Your task to perform on an android device: open device folders in google photos Image 0: 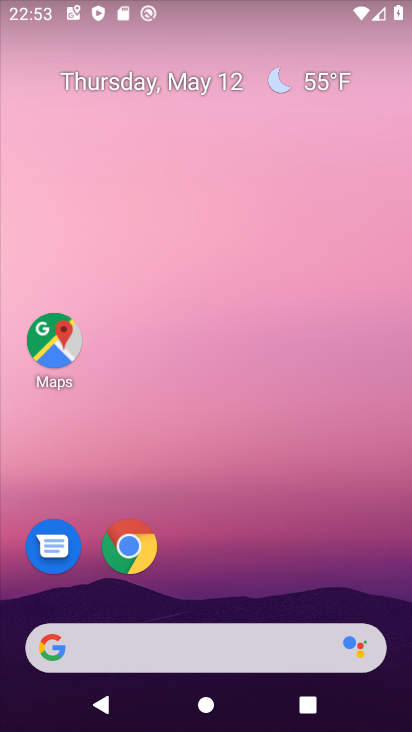
Step 0: drag from (203, 604) to (178, 143)
Your task to perform on an android device: open device folders in google photos Image 1: 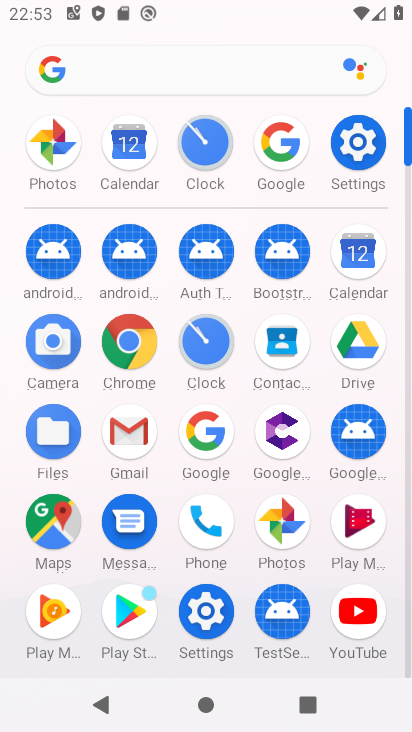
Step 1: click (55, 147)
Your task to perform on an android device: open device folders in google photos Image 2: 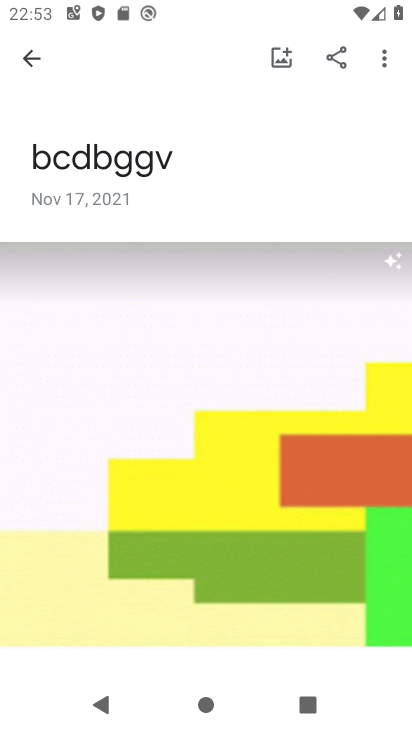
Step 2: click (26, 54)
Your task to perform on an android device: open device folders in google photos Image 3: 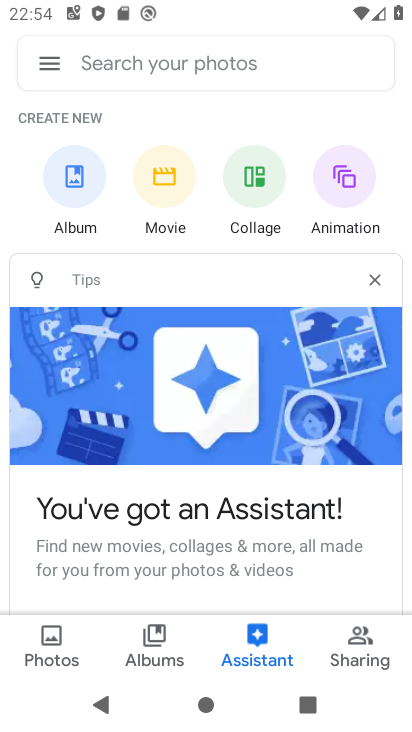
Step 3: click (173, 55)
Your task to perform on an android device: open device folders in google photos Image 4: 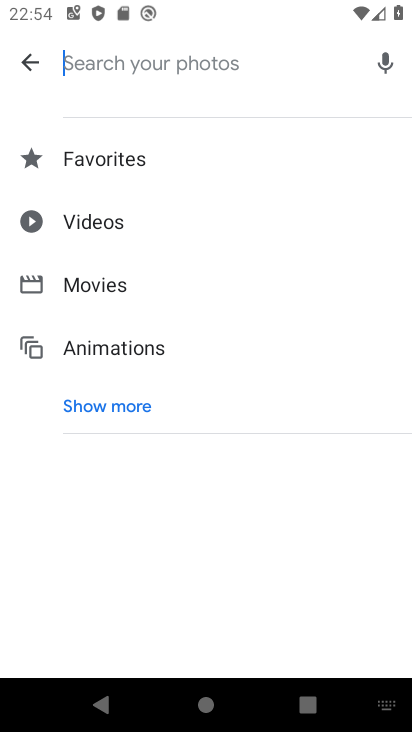
Step 4: type "device folder"
Your task to perform on an android device: open device folders in google photos Image 5: 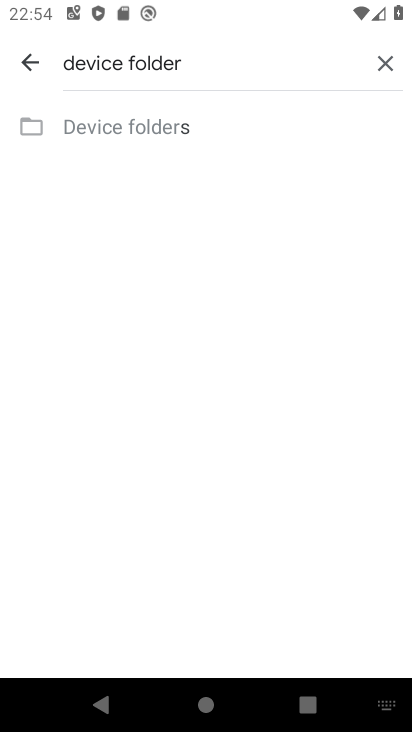
Step 5: click (186, 137)
Your task to perform on an android device: open device folders in google photos Image 6: 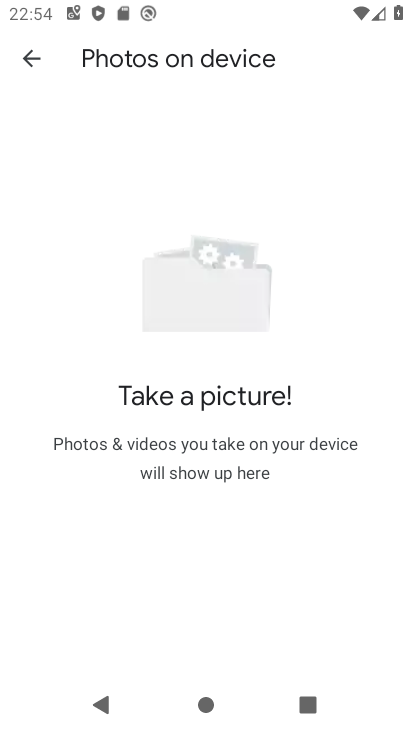
Step 6: task complete